Your task to perform on an android device: Play the last video I watched on Youtube Image 0: 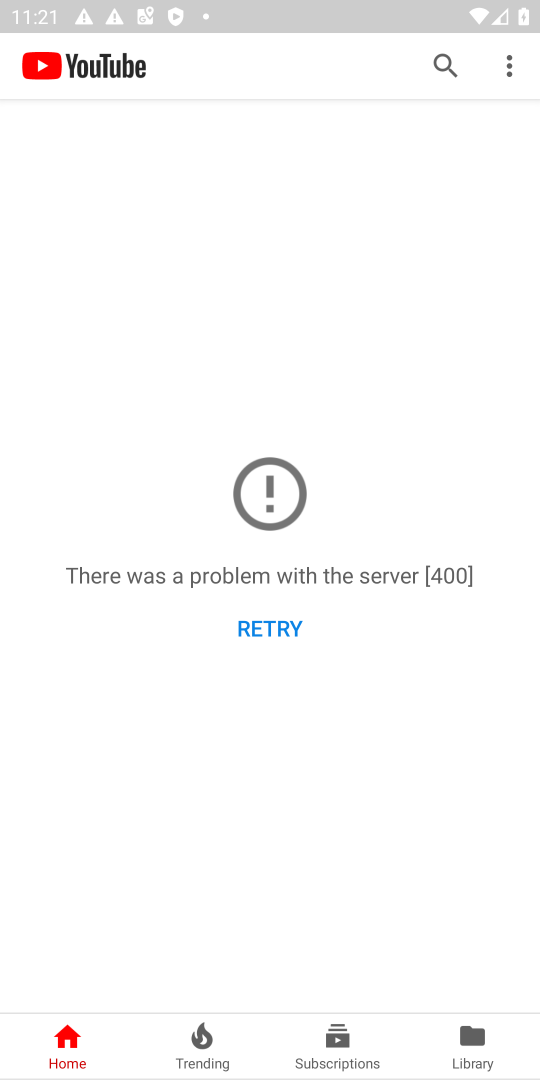
Step 0: press home button
Your task to perform on an android device: Play the last video I watched on Youtube Image 1: 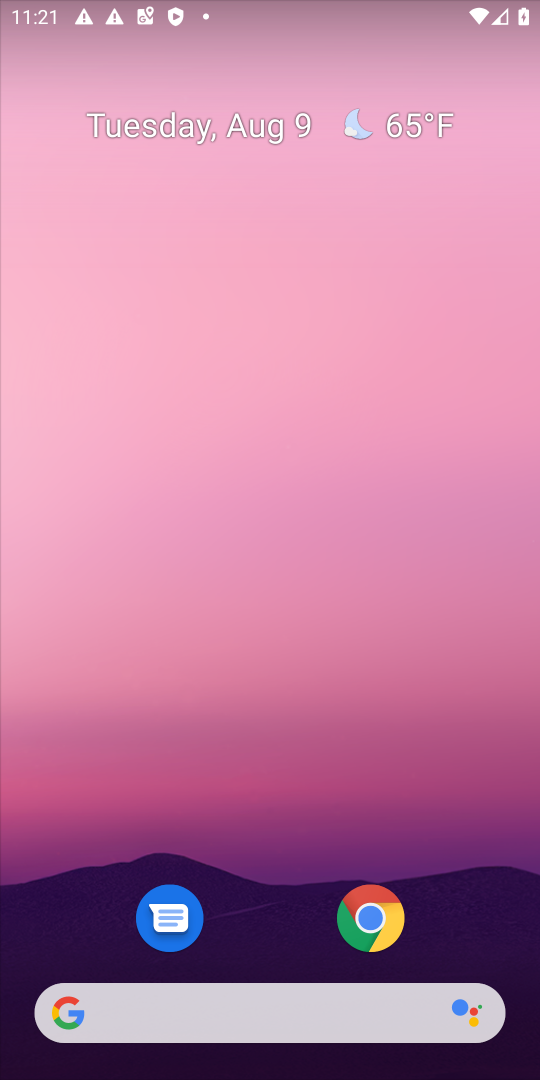
Step 1: drag from (283, 888) to (392, 180)
Your task to perform on an android device: Play the last video I watched on Youtube Image 2: 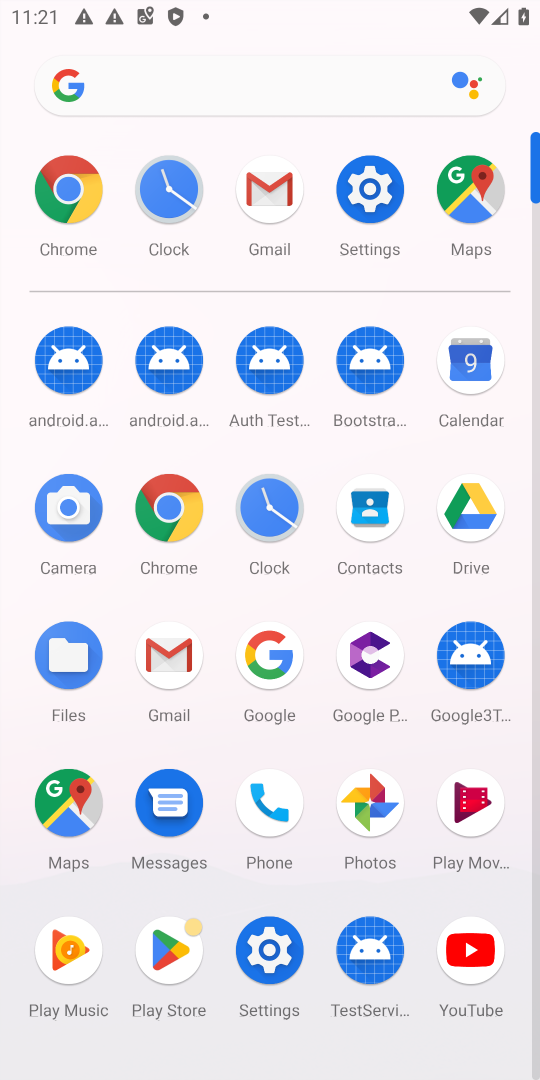
Step 2: click (471, 948)
Your task to perform on an android device: Play the last video I watched on Youtube Image 3: 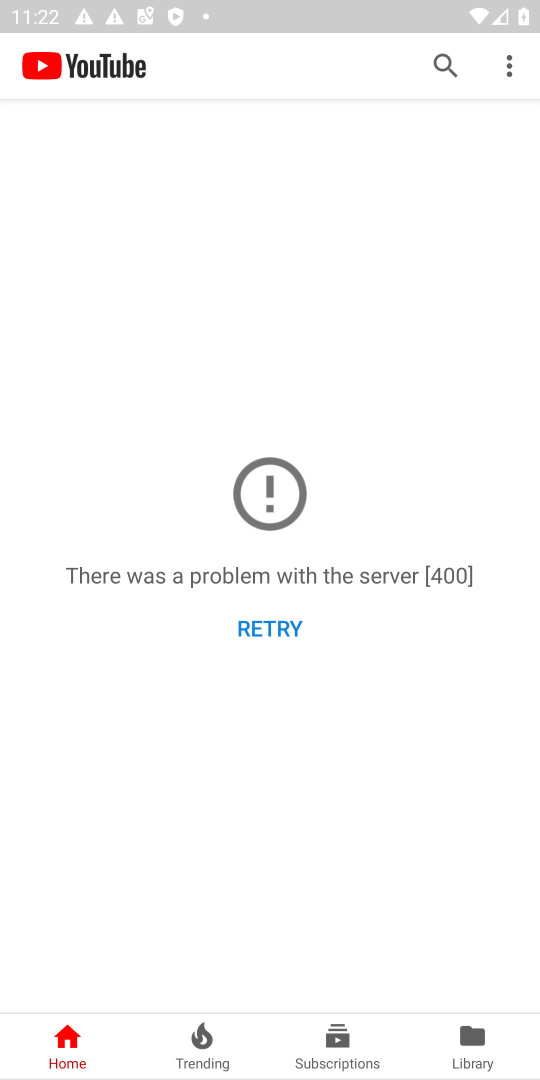
Step 3: task complete